Your task to perform on an android device: star an email in the gmail app Image 0: 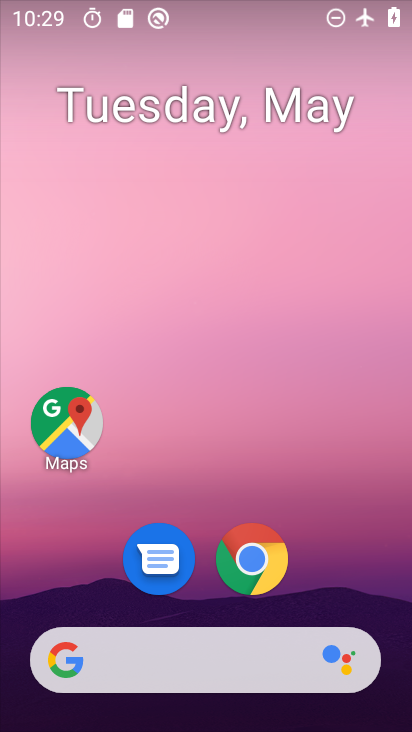
Step 0: drag from (397, 640) to (300, 16)
Your task to perform on an android device: star an email in the gmail app Image 1: 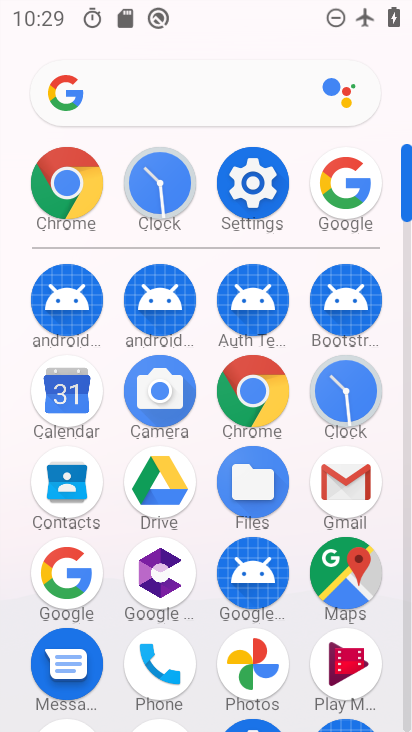
Step 1: click (361, 485)
Your task to perform on an android device: star an email in the gmail app Image 2: 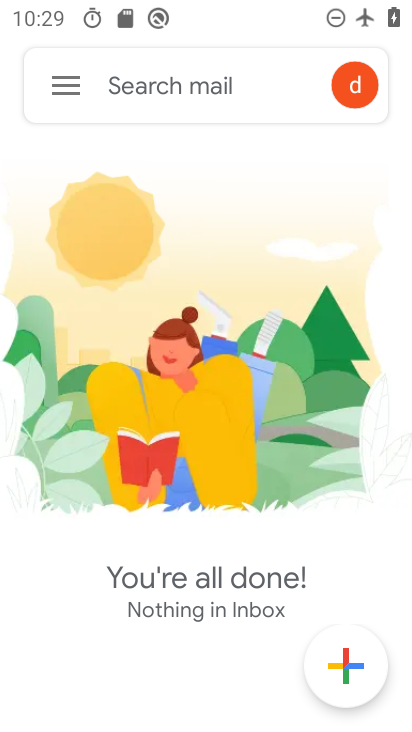
Step 2: task complete